Your task to perform on an android device: search for starred emails in the gmail app Image 0: 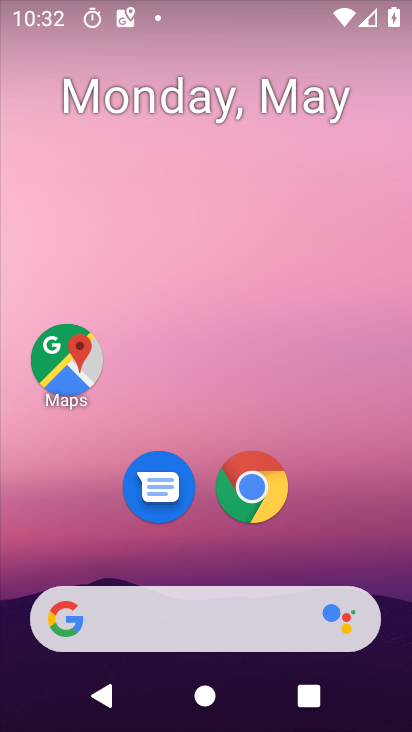
Step 0: drag from (210, 551) to (264, 69)
Your task to perform on an android device: search for starred emails in the gmail app Image 1: 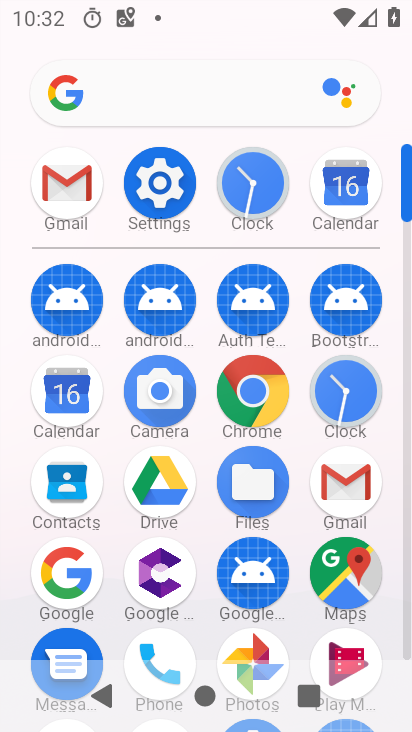
Step 1: click (339, 475)
Your task to perform on an android device: search for starred emails in the gmail app Image 2: 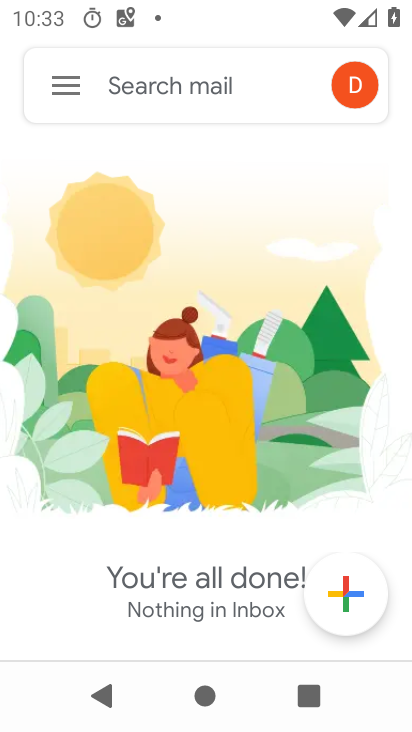
Step 2: click (64, 86)
Your task to perform on an android device: search for starred emails in the gmail app Image 3: 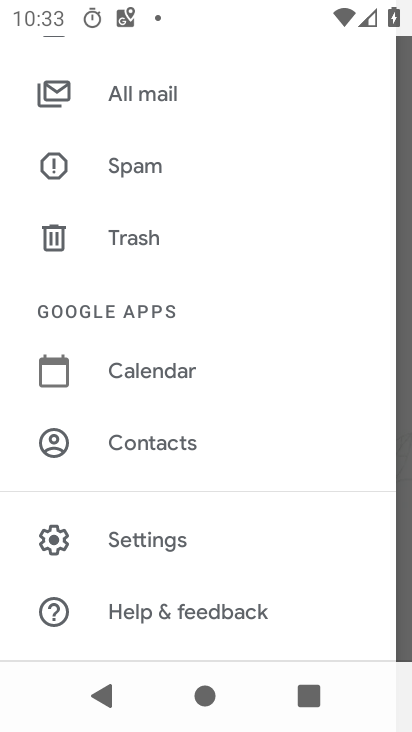
Step 3: drag from (180, 313) to (264, 545)
Your task to perform on an android device: search for starred emails in the gmail app Image 4: 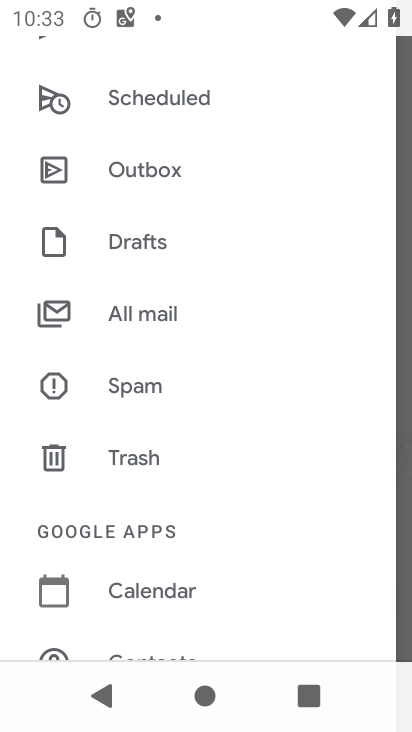
Step 4: drag from (262, 326) to (291, 472)
Your task to perform on an android device: search for starred emails in the gmail app Image 5: 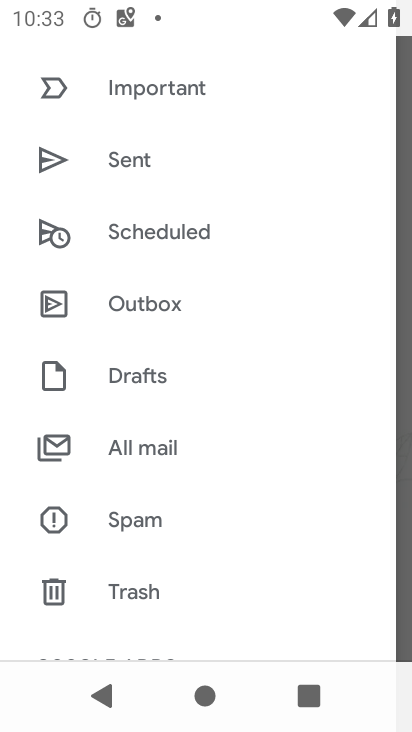
Step 5: drag from (215, 220) to (217, 415)
Your task to perform on an android device: search for starred emails in the gmail app Image 6: 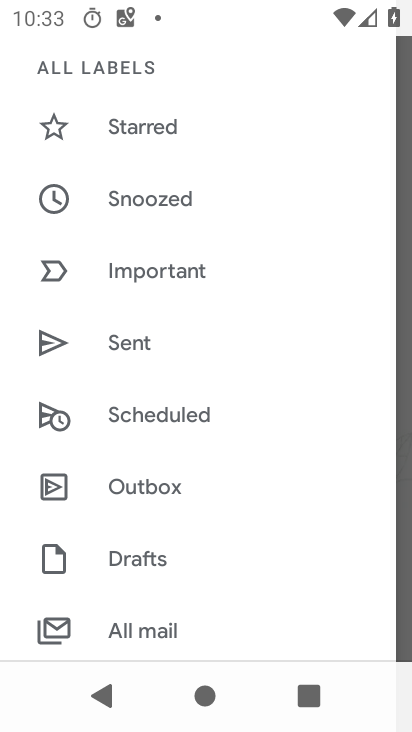
Step 6: click (167, 124)
Your task to perform on an android device: search for starred emails in the gmail app Image 7: 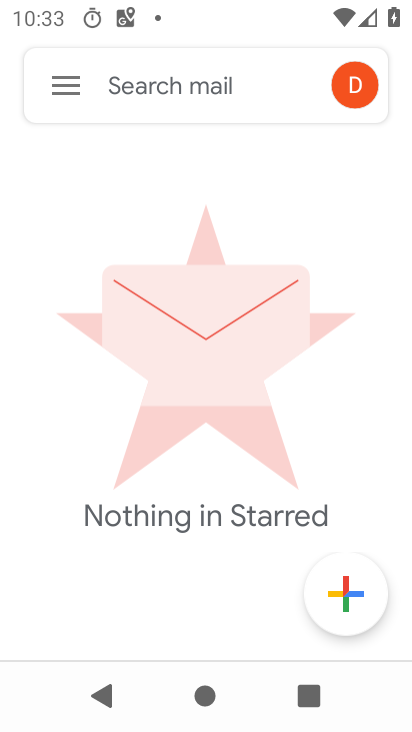
Step 7: task complete